Your task to perform on an android device: change the clock display to digital Image 0: 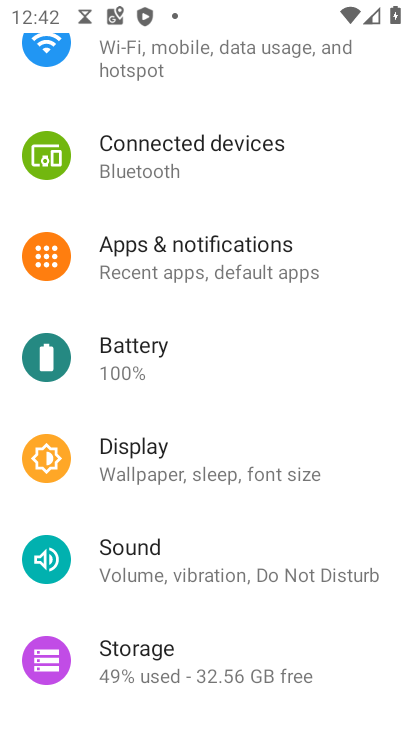
Step 0: press home button
Your task to perform on an android device: change the clock display to digital Image 1: 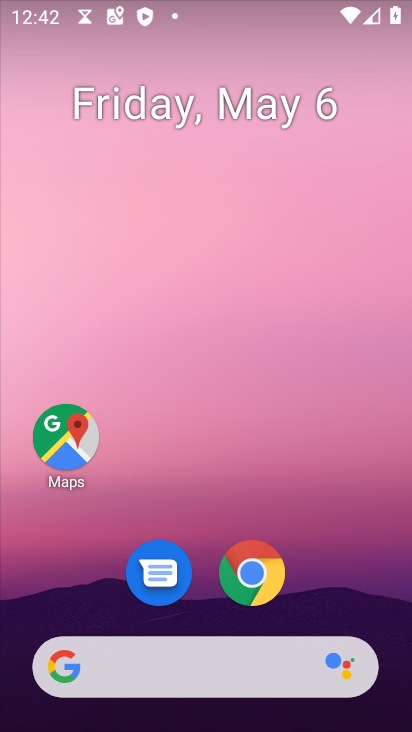
Step 1: drag from (363, 594) to (350, 301)
Your task to perform on an android device: change the clock display to digital Image 2: 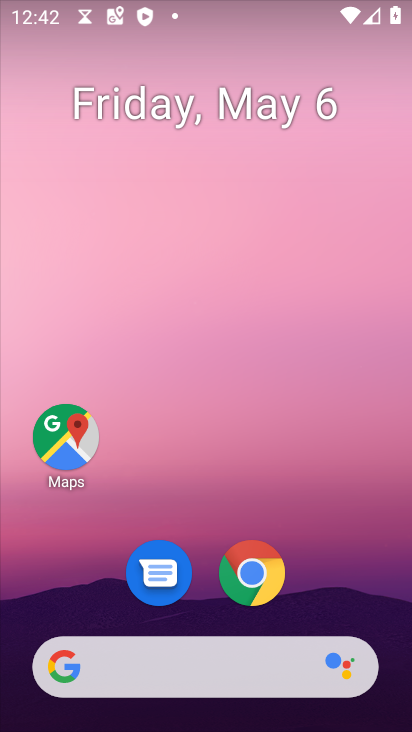
Step 2: drag from (334, 579) to (390, 206)
Your task to perform on an android device: change the clock display to digital Image 3: 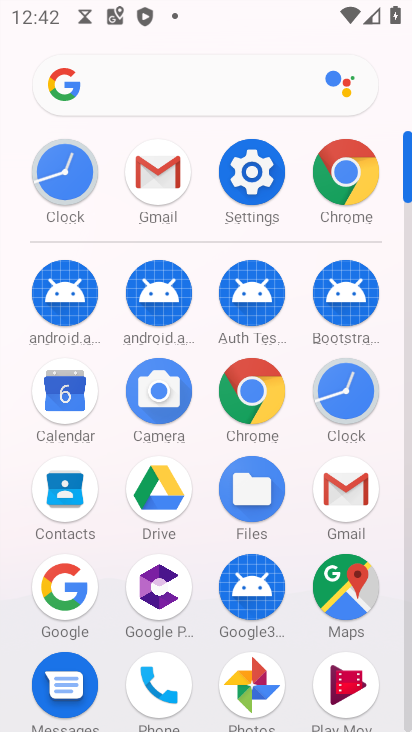
Step 3: click (325, 404)
Your task to perform on an android device: change the clock display to digital Image 4: 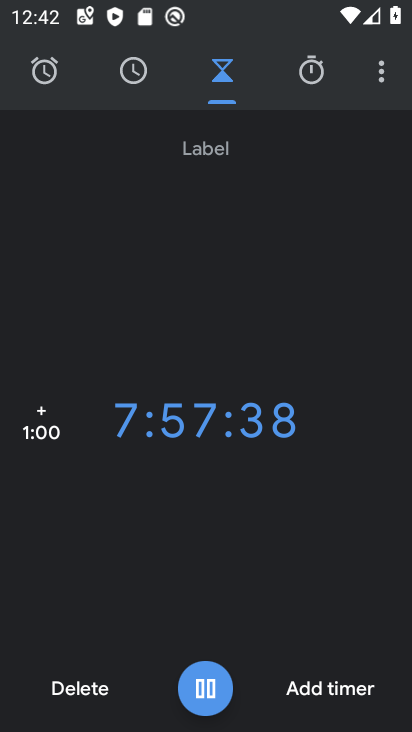
Step 4: click (358, 79)
Your task to perform on an android device: change the clock display to digital Image 5: 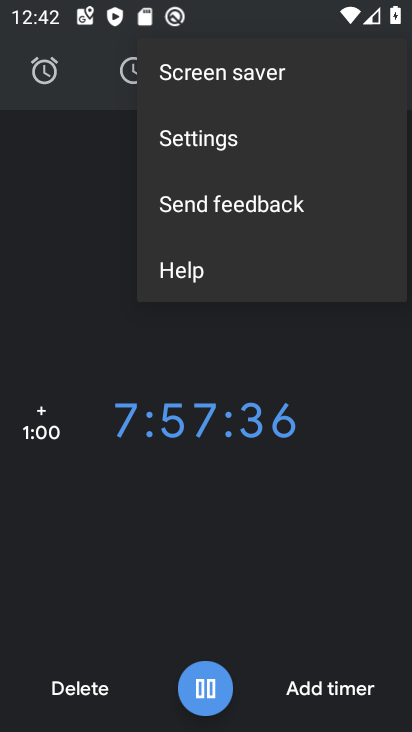
Step 5: click (239, 139)
Your task to perform on an android device: change the clock display to digital Image 6: 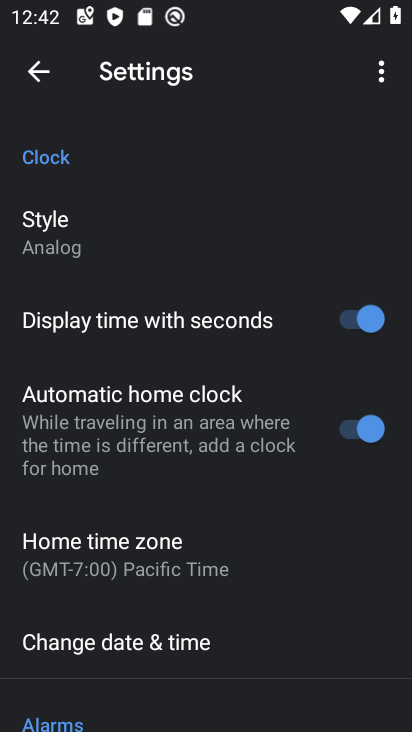
Step 6: click (43, 237)
Your task to perform on an android device: change the clock display to digital Image 7: 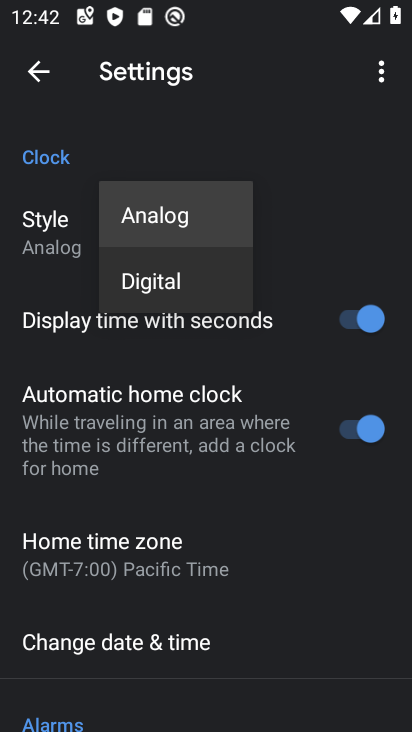
Step 7: click (184, 287)
Your task to perform on an android device: change the clock display to digital Image 8: 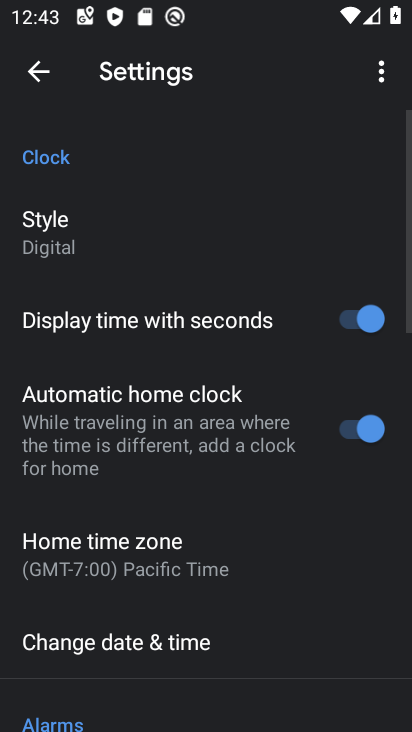
Step 8: task complete